Your task to perform on an android device: turn off notifications settings in the gmail app Image 0: 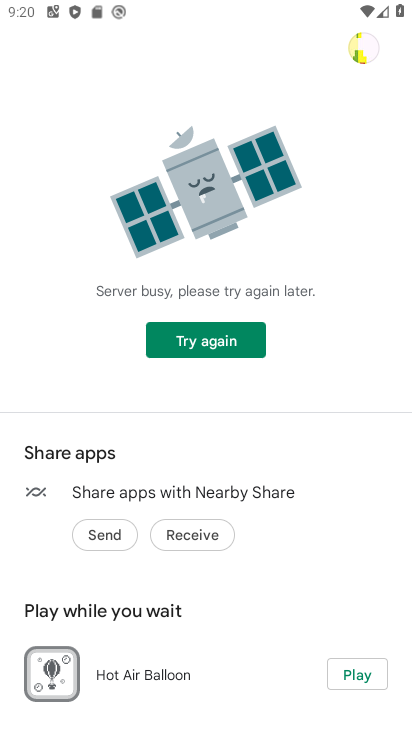
Step 0: press home button
Your task to perform on an android device: turn off notifications settings in the gmail app Image 1: 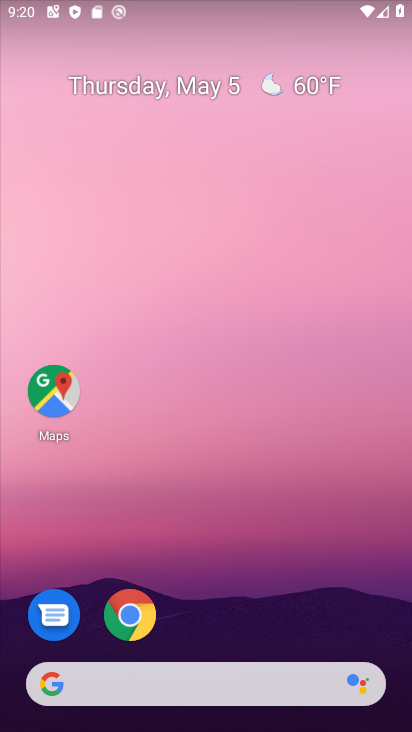
Step 1: drag from (251, 599) to (228, 204)
Your task to perform on an android device: turn off notifications settings in the gmail app Image 2: 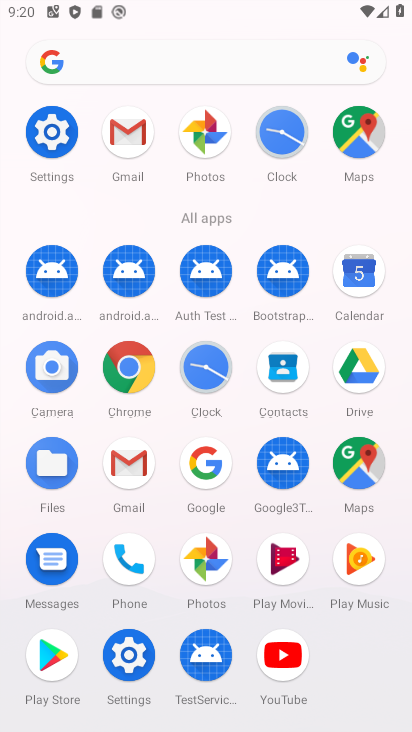
Step 2: click (127, 121)
Your task to perform on an android device: turn off notifications settings in the gmail app Image 3: 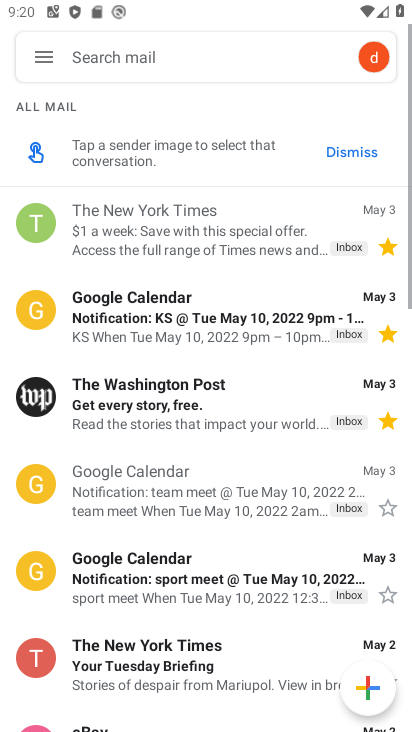
Step 3: click (47, 57)
Your task to perform on an android device: turn off notifications settings in the gmail app Image 4: 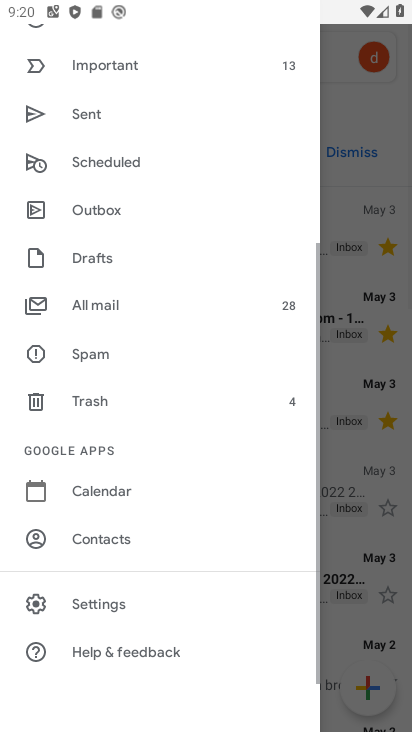
Step 4: drag from (167, 538) to (196, 285)
Your task to perform on an android device: turn off notifications settings in the gmail app Image 5: 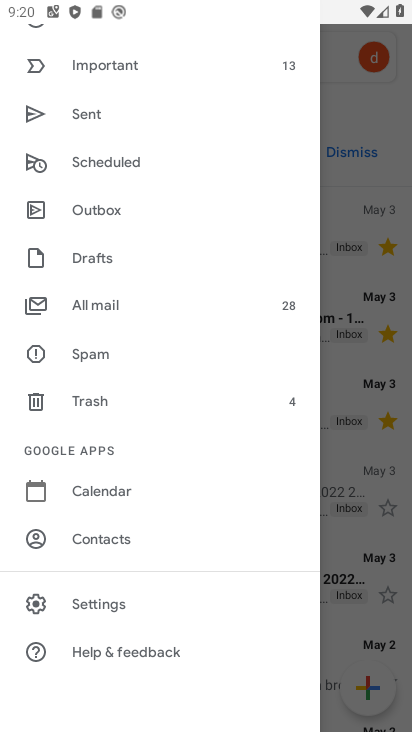
Step 5: click (116, 607)
Your task to perform on an android device: turn off notifications settings in the gmail app Image 6: 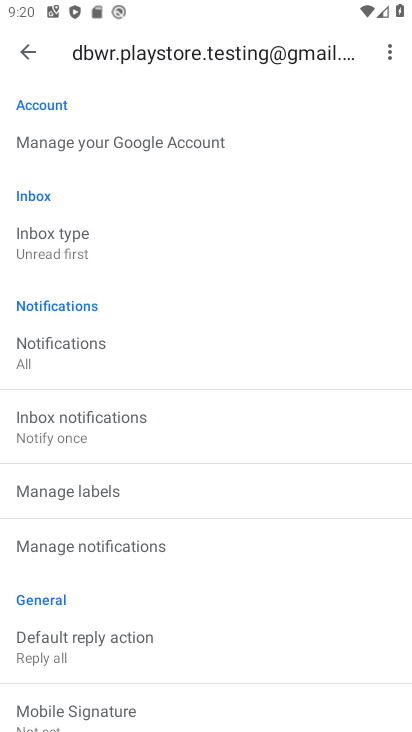
Step 6: click (87, 355)
Your task to perform on an android device: turn off notifications settings in the gmail app Image 7: 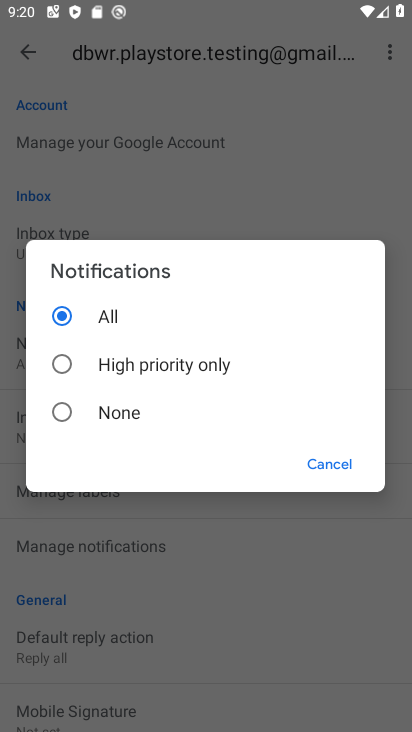
Step 7: click (46, 415)
Your task to perform on an android device: turn off notifications settings in the gmail app Image 8: 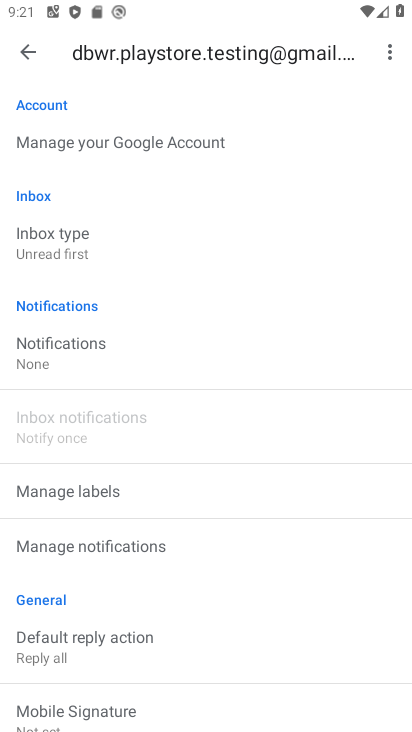
Step 8: task complete